Your task to perform on an android device: Open internet settings Image 0: 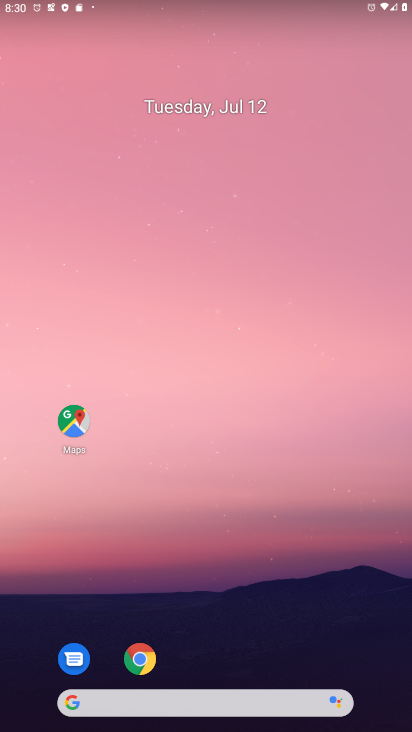
Step 0: drag from (175, 712) to (235, 164)
Your task to perform on an android device: Open internet settings Image 1: 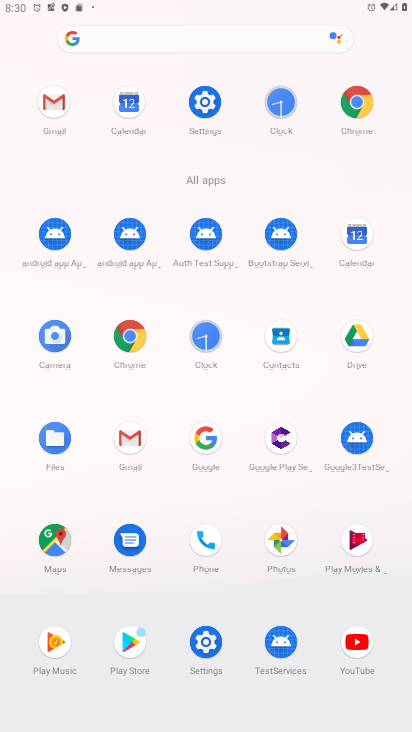
Step 1: click (204, 101)
Your task to perform on an android device: Open internet settings Image 2: 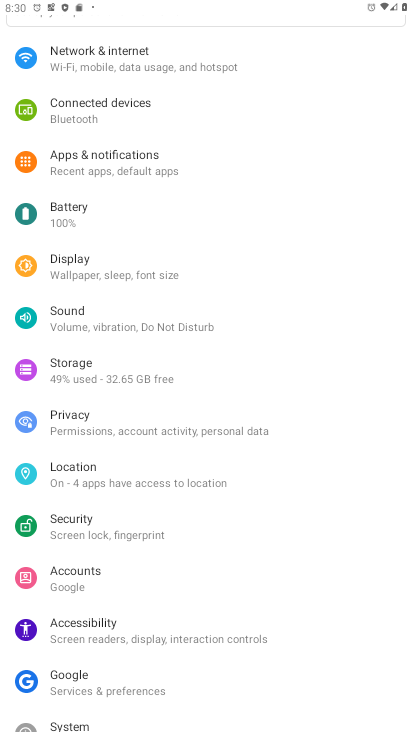
Step 2: click (116, 70)
Your task to perform on an android device: Open internet settings Image 3: 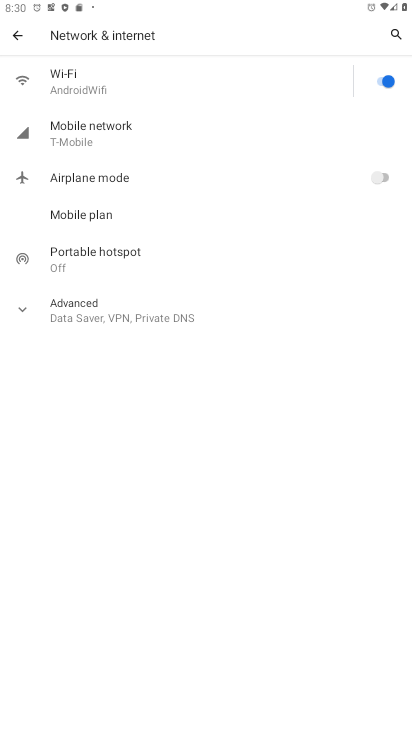
Step 3: task complete